Your task to perform on an android device: What's on the menu at Starbucks? Image 0: 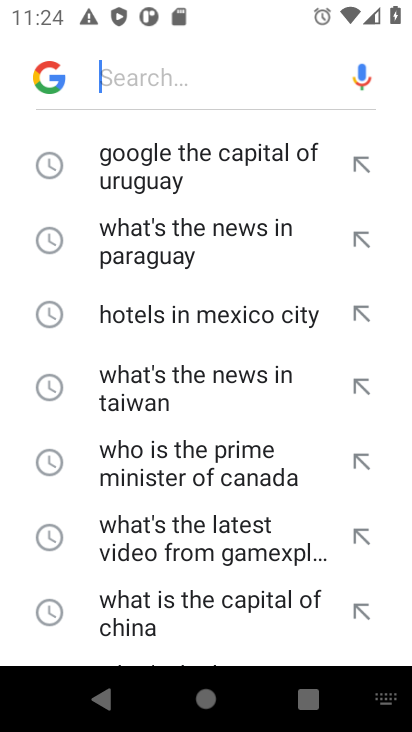
Step 0: press home button
Your task to perform on an android device: What's on the menu at Starbucks? Image 1: 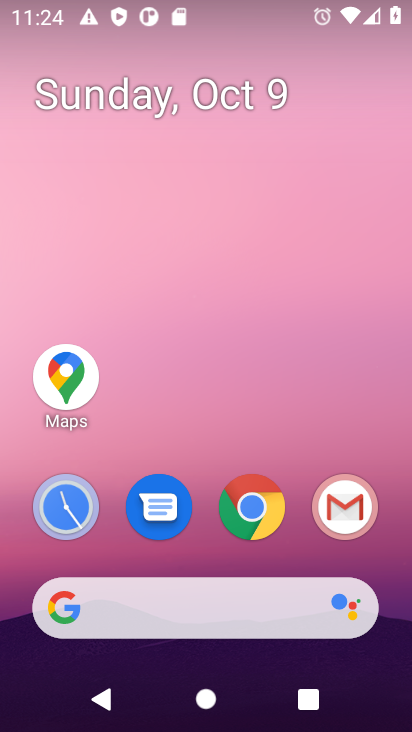
Step 1: click (218, 603)
Your task to perform on an android device: What's on the menu at Starbucks? Image 2: 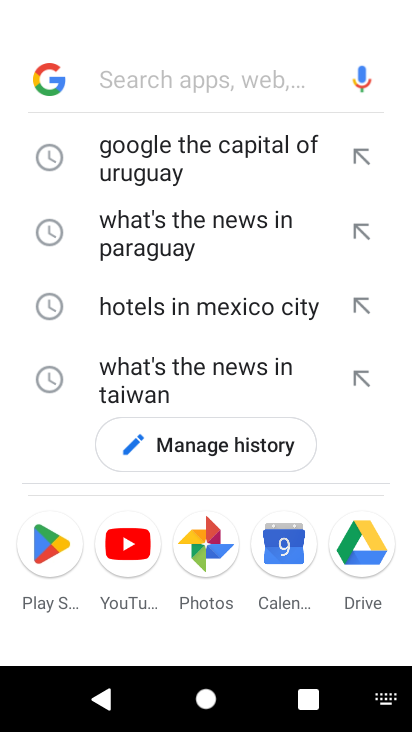
Step 2: type "What's on the menu at Starbucks"
Your task to perform on an android device: What's on the menu at Starbucks? Image 3: 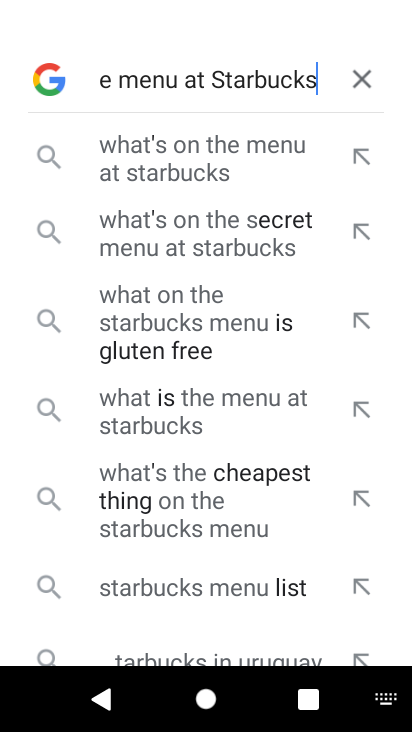
Step 3: press enter
Your task to perform on an android device: What's on the menu at Starbucks? Image 4: 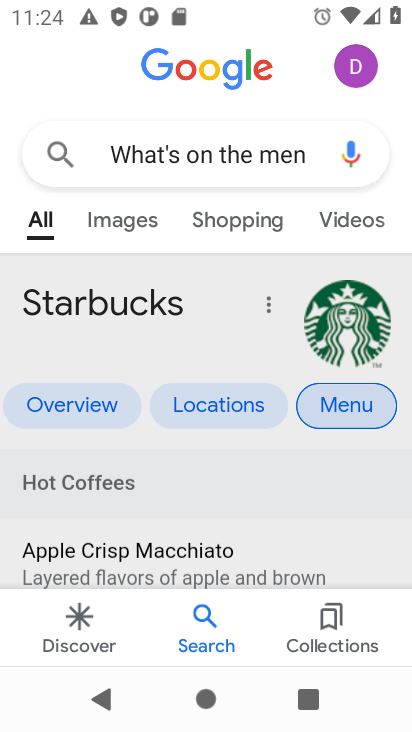
Step 4: drag from (284, 526) to (278, 303)
Your task to perform on an android device: What's on the menu at Starbucks? Image 5: 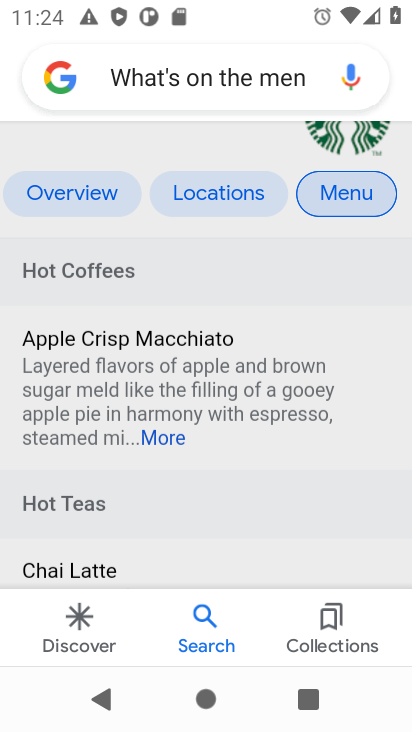
Step 5: drag from (256, 480) to (267, 297)
Your task to perform on an android device: What's on the menu at Starbucks? Image 6: 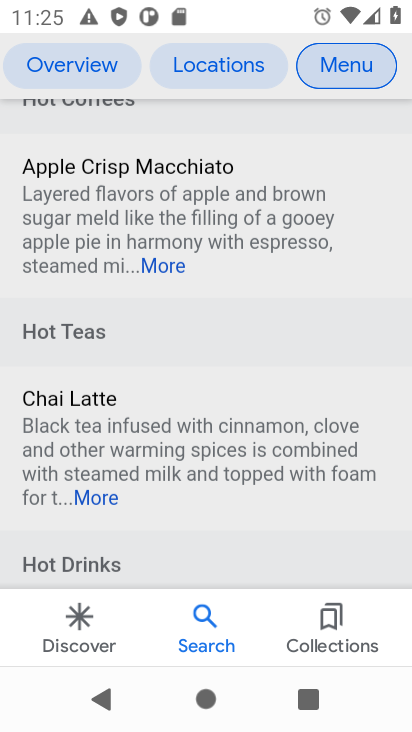
Step 6: drag from (242, 508) to (257, 349)
Your task to perform on an android device: What's on the menu at Starbucks? Image 7: 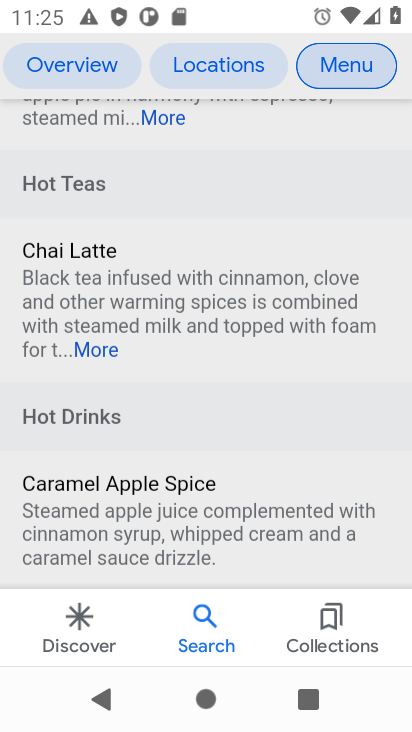
Step 7: drag from (243, 534) to (246, 369)
Your task to perform on an android device: What's on the menu at Starbucks? Image 8: 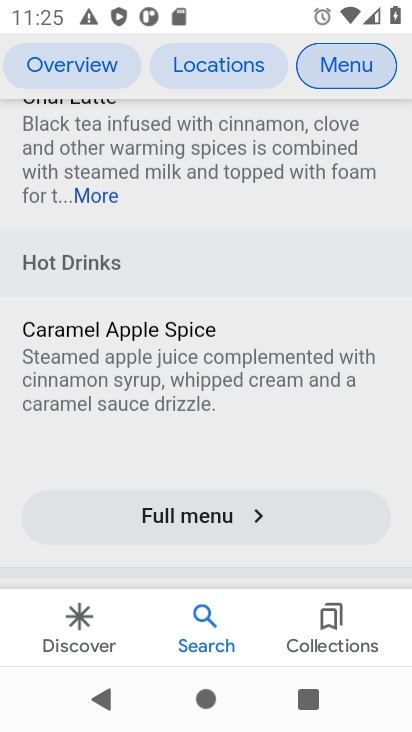
Step 8: click (204, 526)
Your task to perform on an android device: What's on the menu at Starbucks? Image 9: 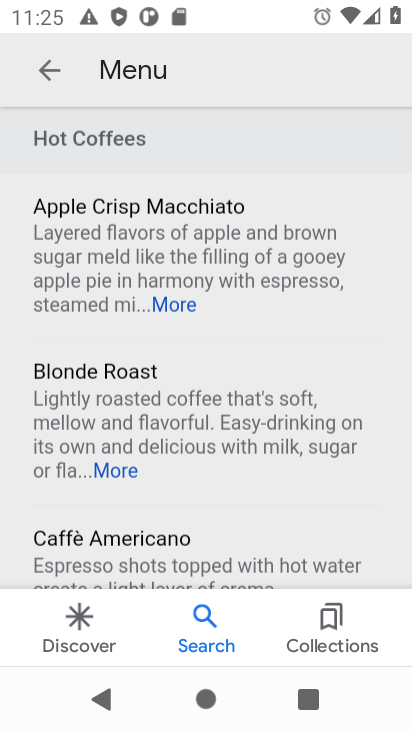
Step 9: task complete